Your task to perform on an android device: Search for a new highlighter Image 0: 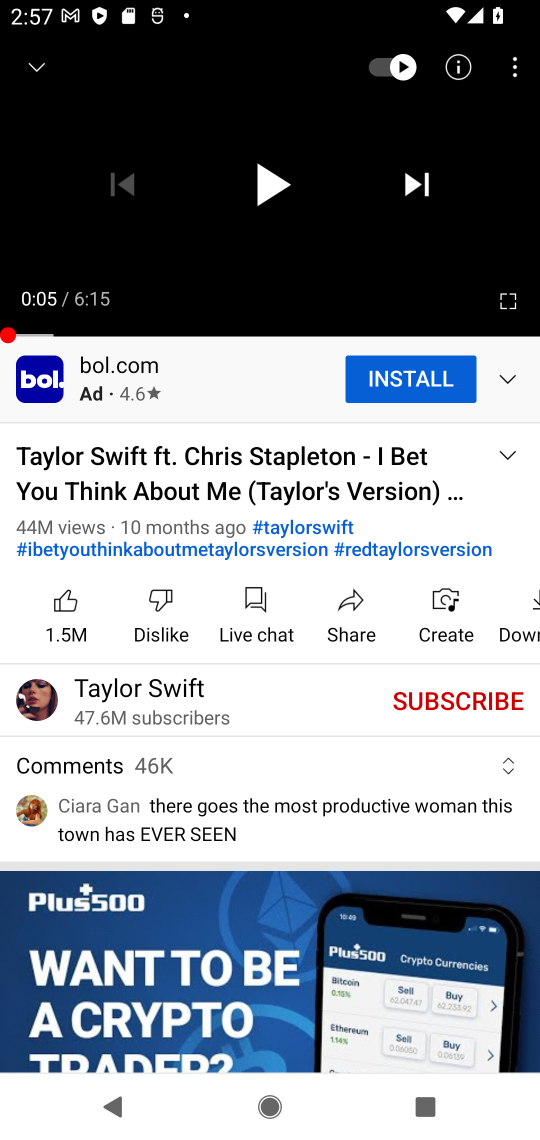
Step 0: press home button
Your task to perform on an android device: Search for a new highlighter Image 1: 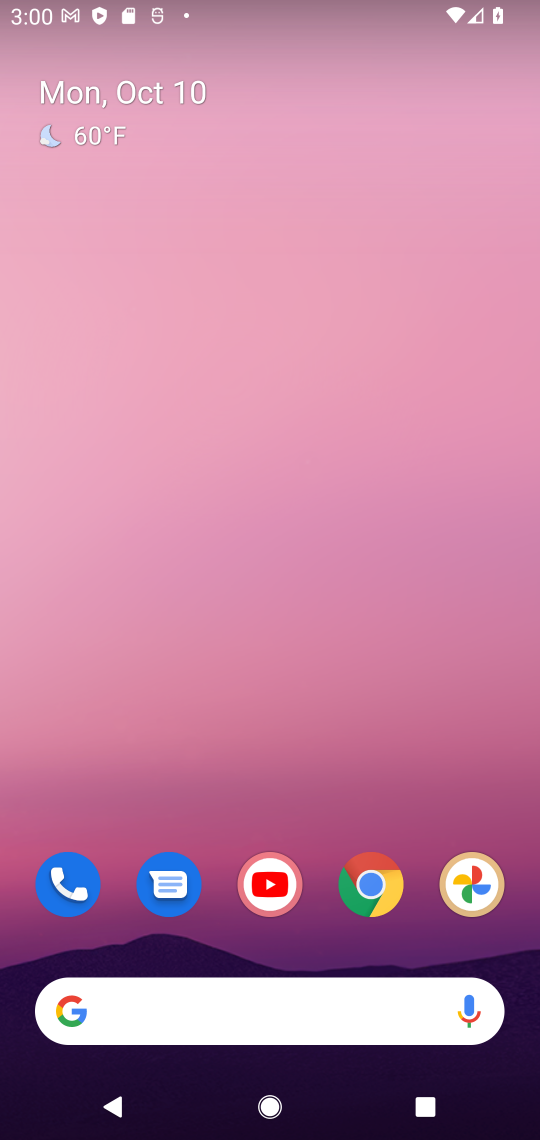
Step 1: click (363, 881)
Your task to perform on an android device: Search for a new highlighter Image 2: 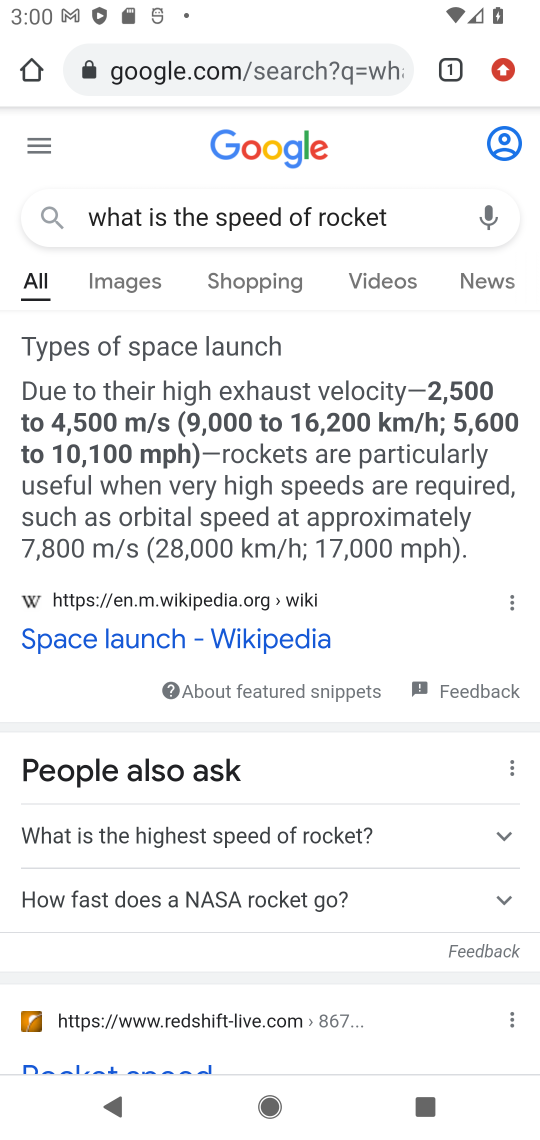
Step 2: click (371, 225)
Your task to perform on an android device: Search for a new highlighter Image 3: 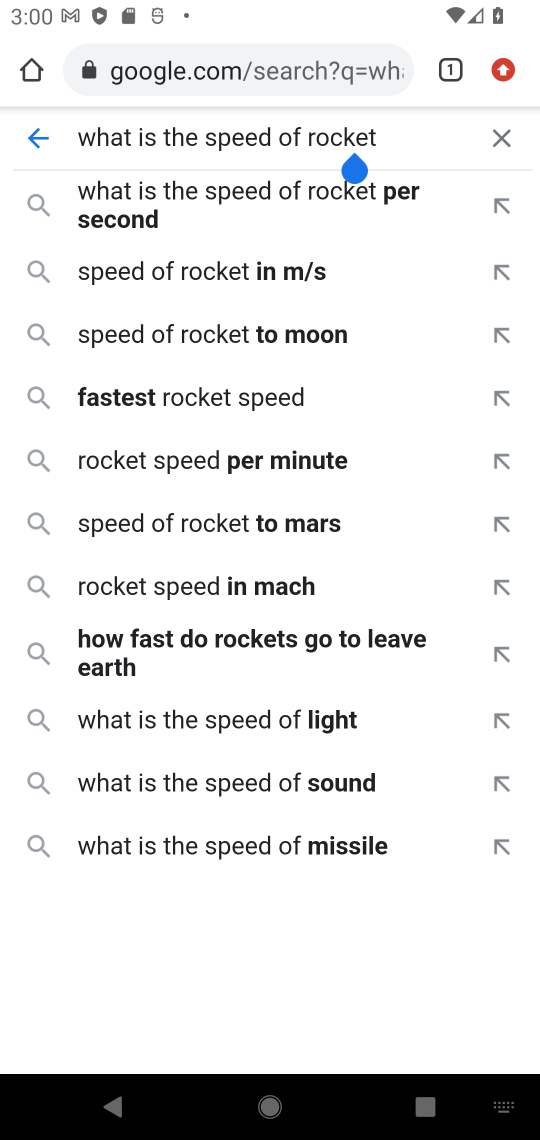
Step 3: click (489, 135)
Your task to perform on an android device: Search for a new highlighter Image 4: 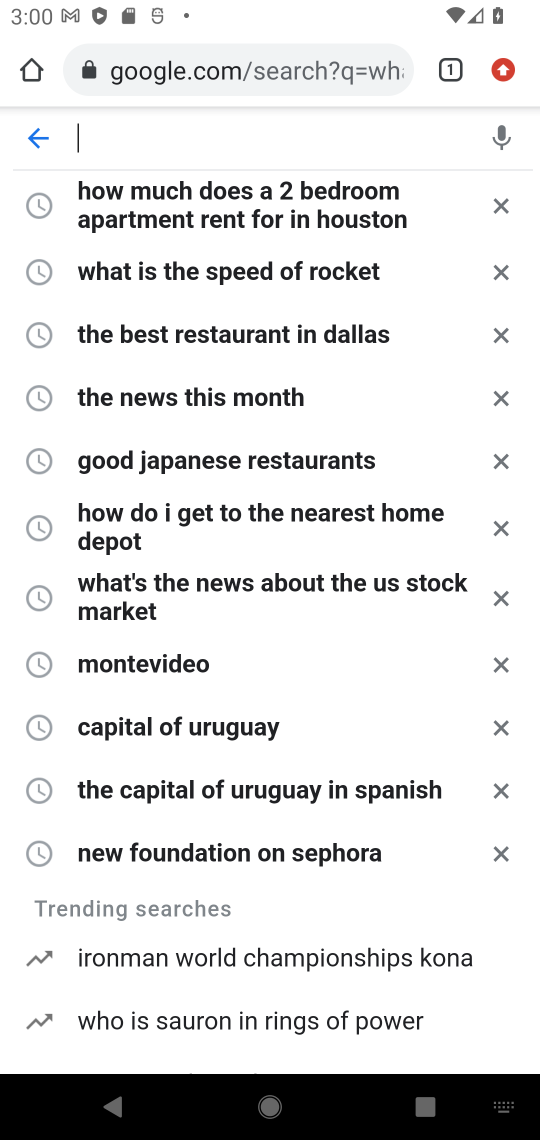
Step 4: type "new highlighter"
Your task to perform on an android device: Search for a new highlighter Image 5: 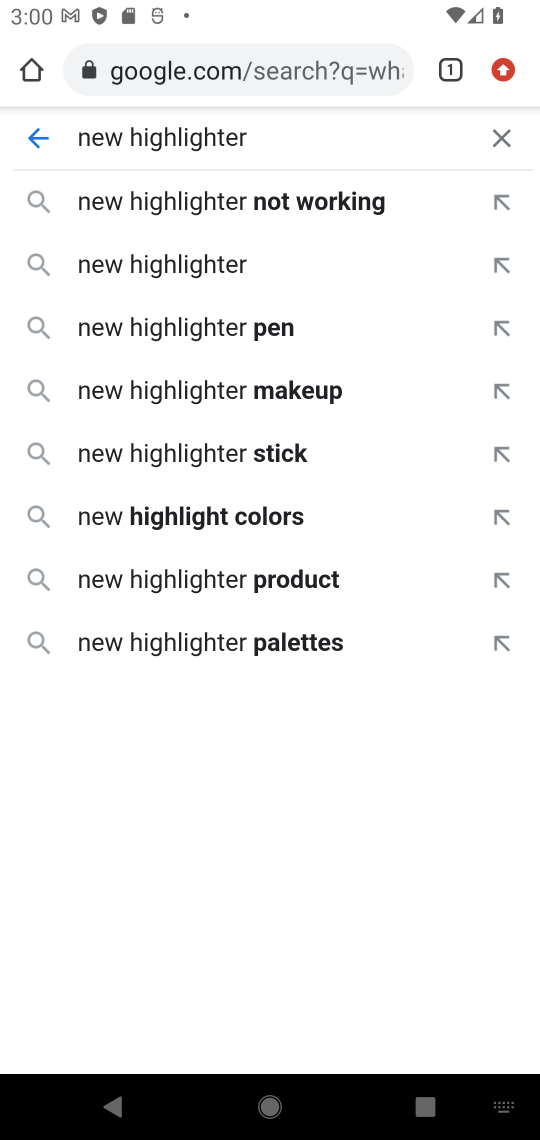
Step 5: click (181, 265)
Your task to perform on an android device: Search for a new highlighter Image 6: 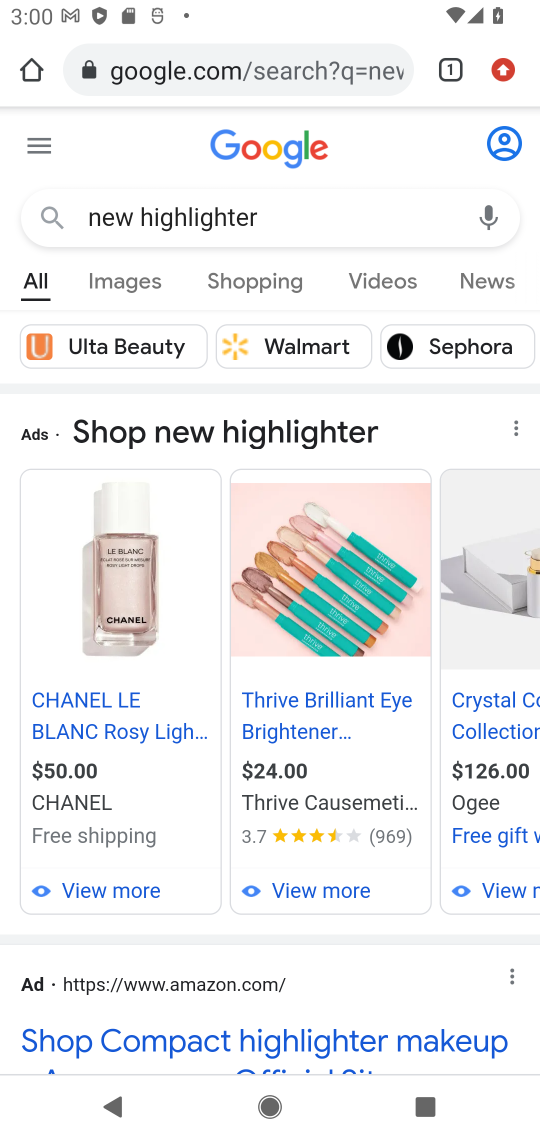
Step 6: task complete